Your task to perform on an android device: set default search engine in the chrome app Image 0: 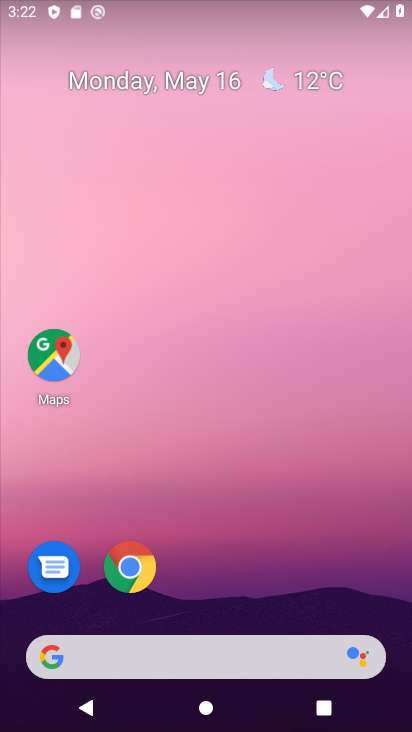
Step 0: drag from (287, 524) to (209, 27)
Your task to perform on an android device: set default search engine in the chrome app Image 1: 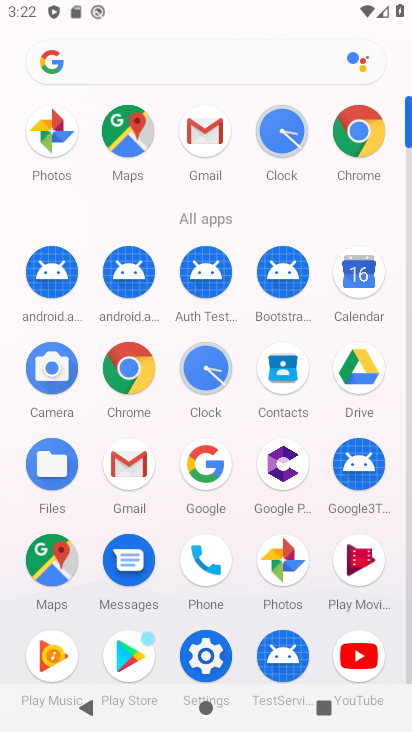
Step 1: drag from (1, 517) to (11, 218)
Your task to perform on an android device: set default search engine in the chrome app Image 2: 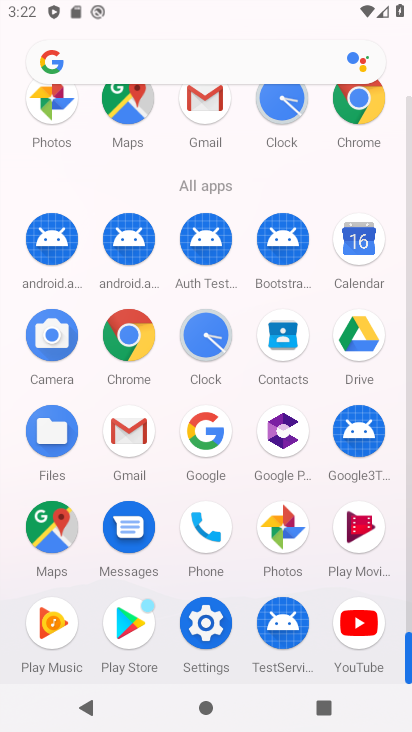
Step 2: click (124, 331)
Your task to perform on an android device: set default search engine in the chrome app Image 3: 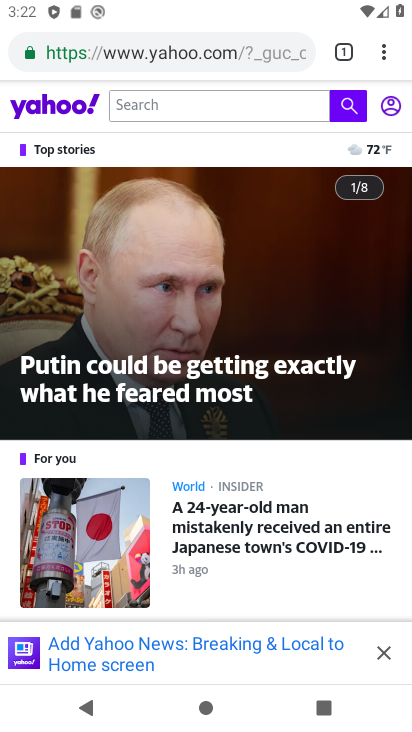
Step 3: drag from (385, 55) to (213, 587)
Your task to perform on an android device: set default search engine in the chrome app Image 4: 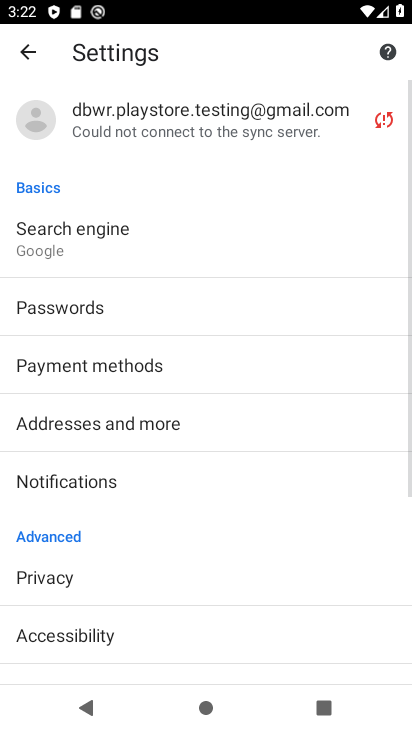
Step 4: click (139, 229)
Your task to perform on an android device: set default search engine in the chrome app Image 5: 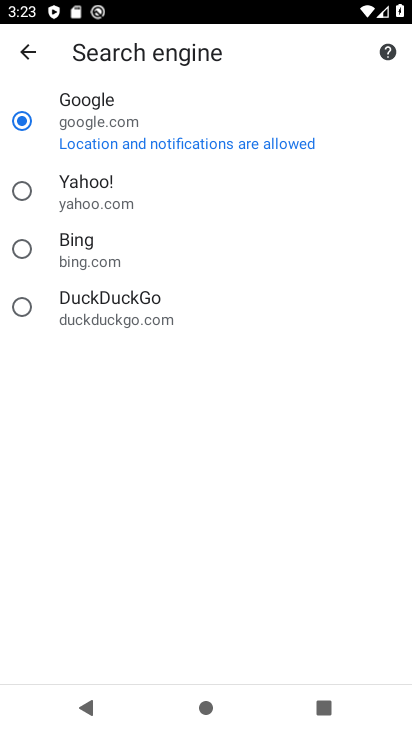
Step 5: click (104, 197)
Your task to perform on an android device: set default search engine in the chrome app Image 6: 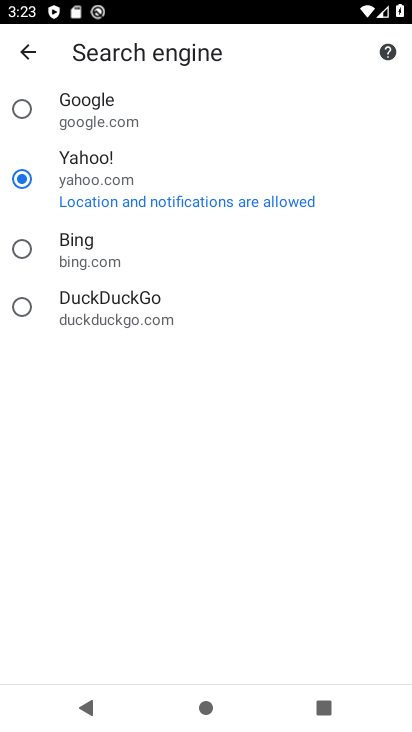
Step 6: task complete